Your task to perform on an android device: turn off notifications in google photos Image 0: 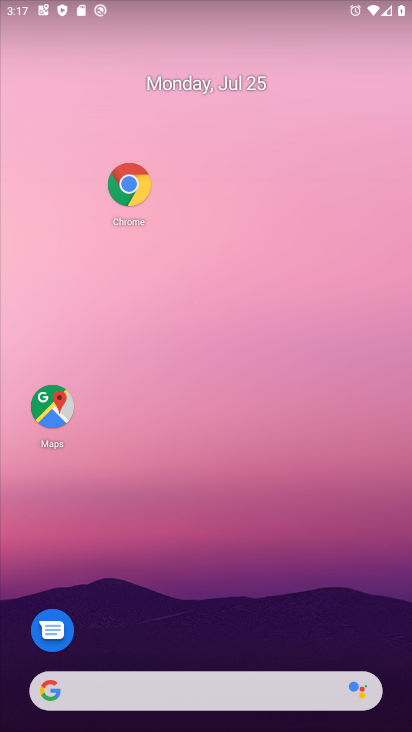
Step 0: drag from (209, 626) to (237, 174)
Your task to perform on an android device: turn off notifications in google photos Image 1: 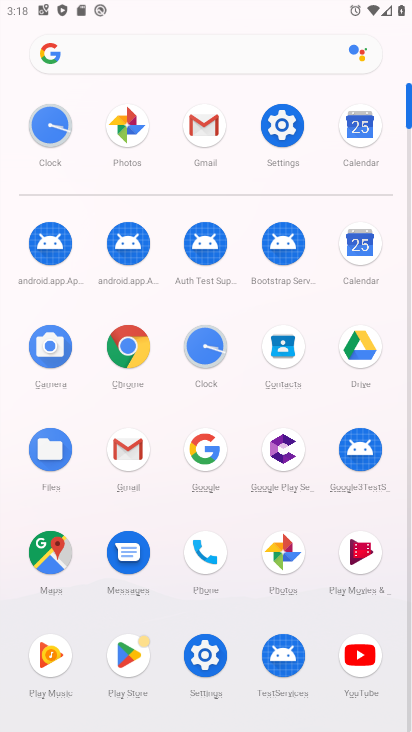
Step 1: click (129, 136)
Your task to perform on an android device: turn off notifications in google photos Image 2: 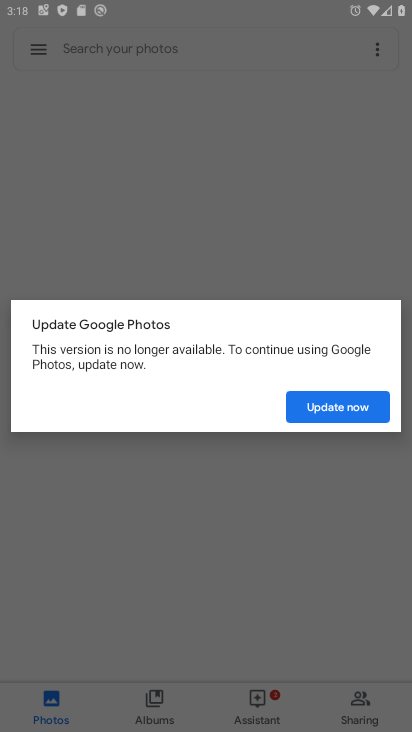
Step 2: click (129, 136)
Your task to perform on an android device: turn off notifications in google photos Image 3: 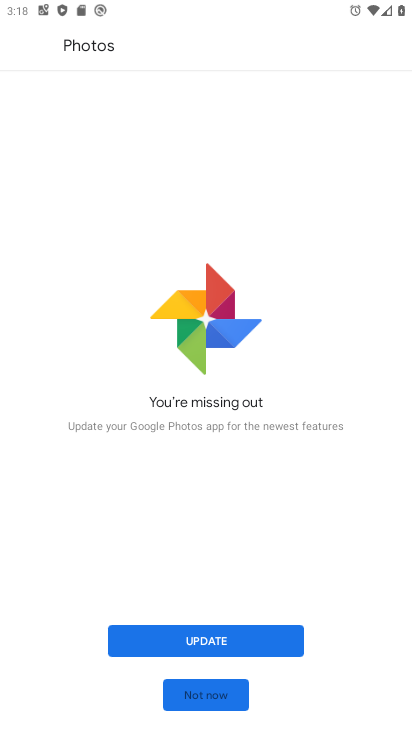
Step 3: click (234, 642)
Your task to perform on an android device: turn off notifications in google photos Image 4: 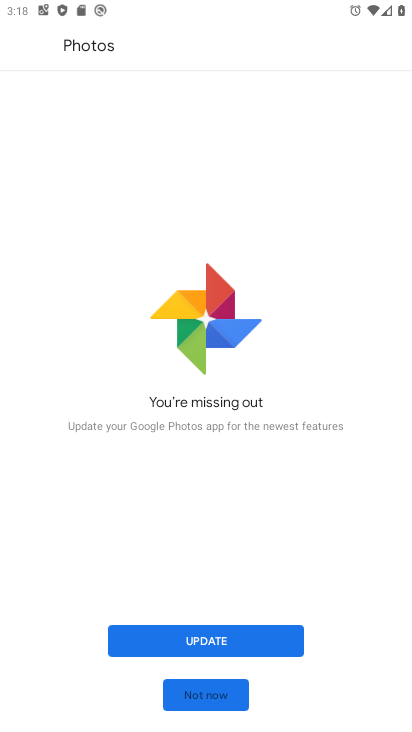
Step 4: click (234, 642)
Your task to perform on an android device: turn off notifications in google photos Image 5: 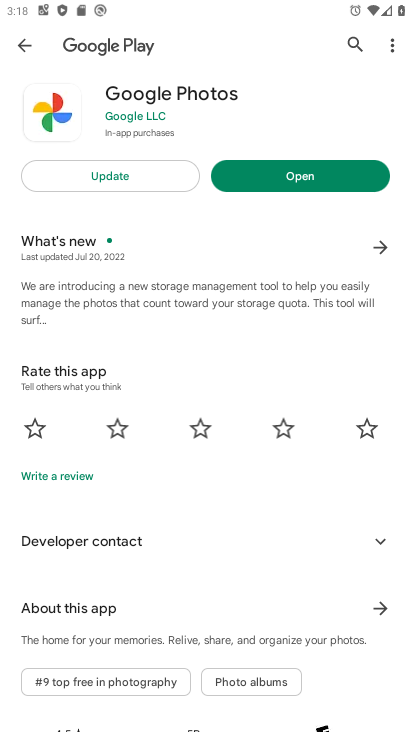
Step 5: click (124, 186)
Your task to perform on an android device: turn off notifications in google photos Image 6: 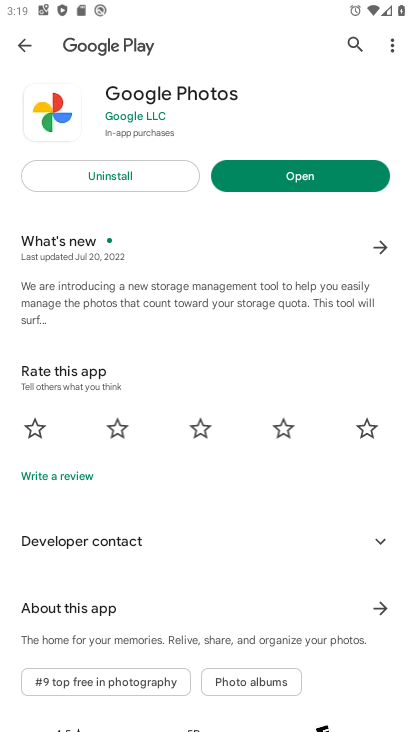
Step 6: click (249, 166)
Your task to perform on an android device: turn off notifications in google photos Image 7: 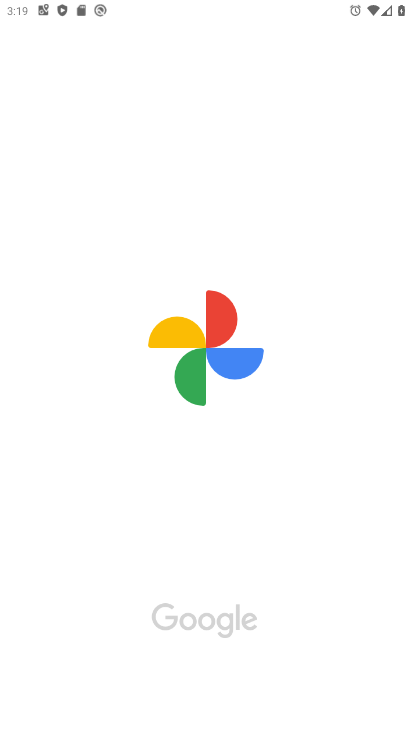
Step 7: task complete